Your task to perform on an android device: Do I have any events tomorrow? Image 0: 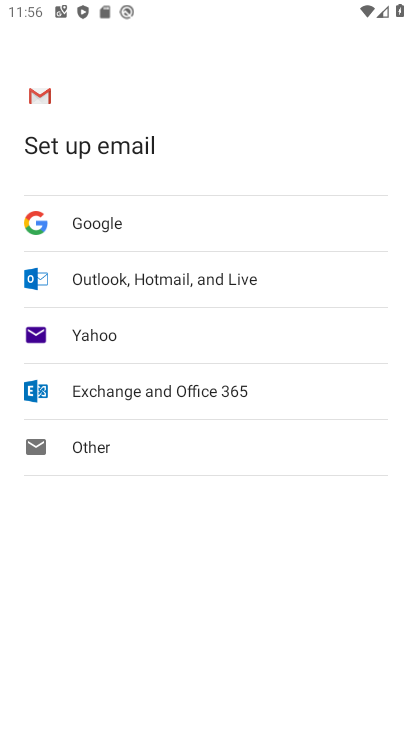
Step 0: press back button
Your task to perform on an android device: Do I have any events tomorrow? Image 1: 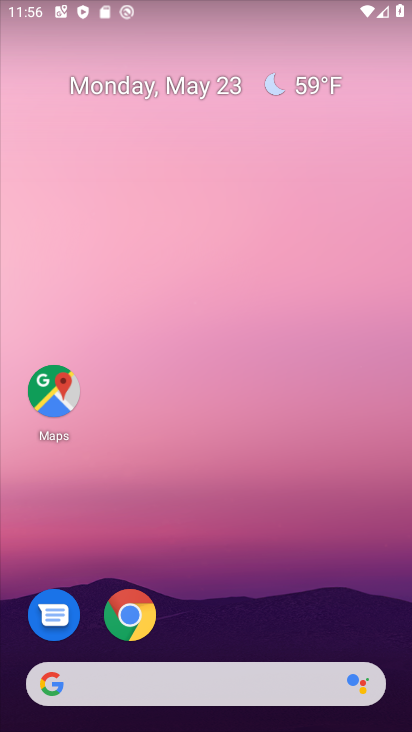
Step 1: drag from (310, 549) to (387, 136)
Your task to perform on an android device: Do I have any events tomorrow? Image 2: 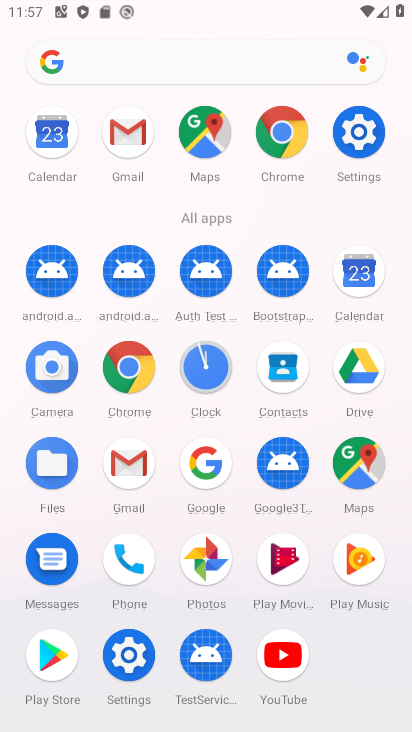
Step 2: drag from (18, 547) to (18, 261)
Your task to perform on an android device: Do I have any events tomorrow? Image 3: 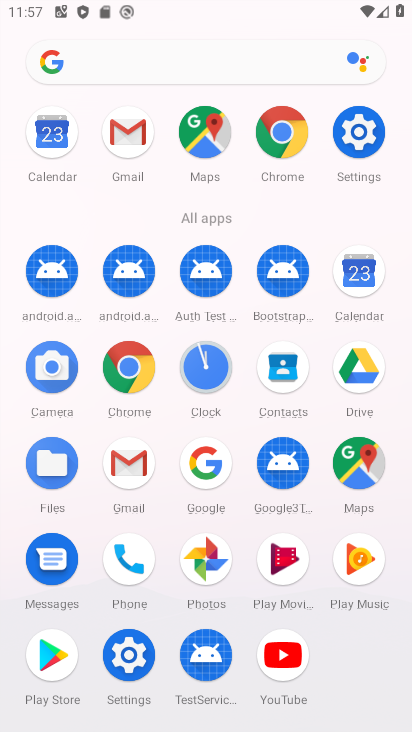
Step 3: drag from (3, 567) to (6, 250)
Your task to perform on an android device: Do I have any events tomorrow? Image 4: 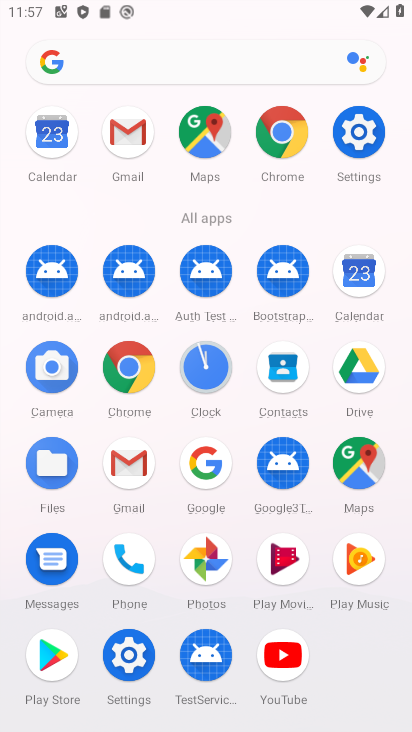
Step 4: click (359, 267)
Your task to perform on an android device: Do I have any events tomorrow? Image 5: 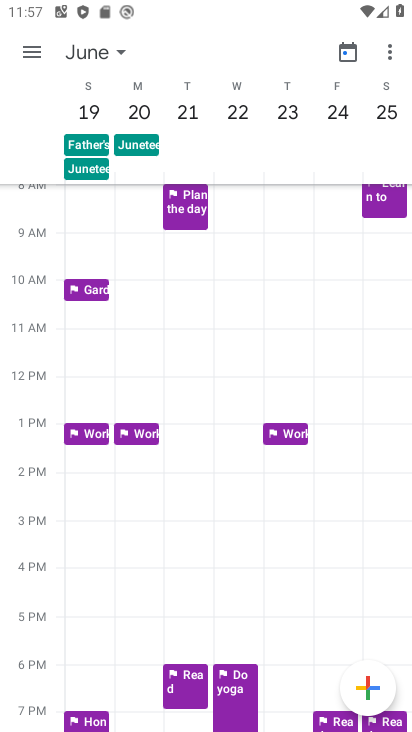
Step 5: click (89, 49)
Your task to perform on an android device: Do I have any events tomorrow? Image 6: 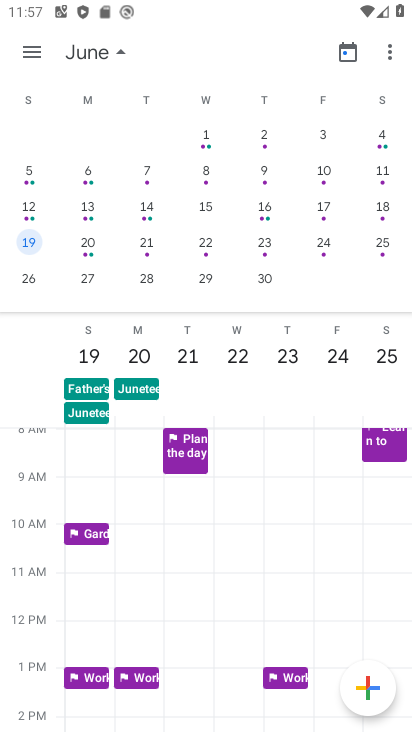
Step 6: click (354, 50)
Your task to perform on an android device: Do I have any events tomorrow? Image 7: 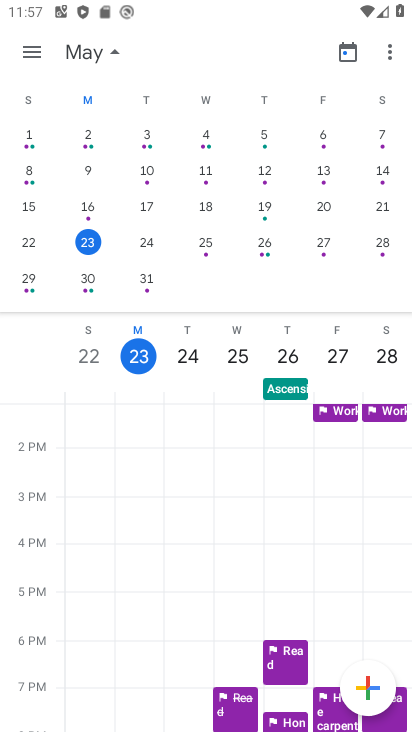
Step 7: click (153, 235)
Your task to perform on an android device: Do I have any events tomorrow? Image 8: 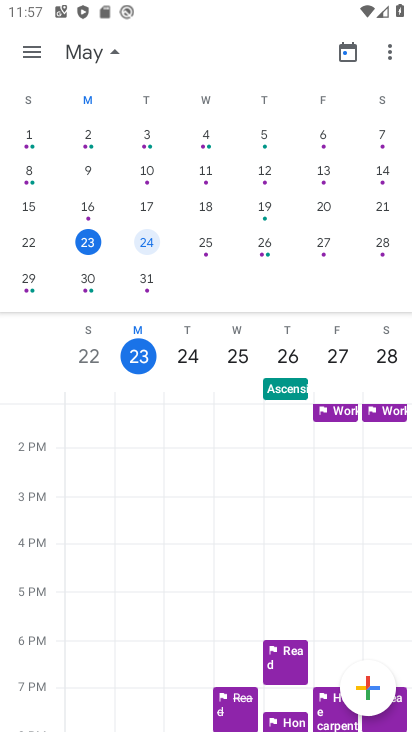
Step 8: click (30, 41)
Your task to perform on an android device: Do I have any events tomorrow? Image 9: 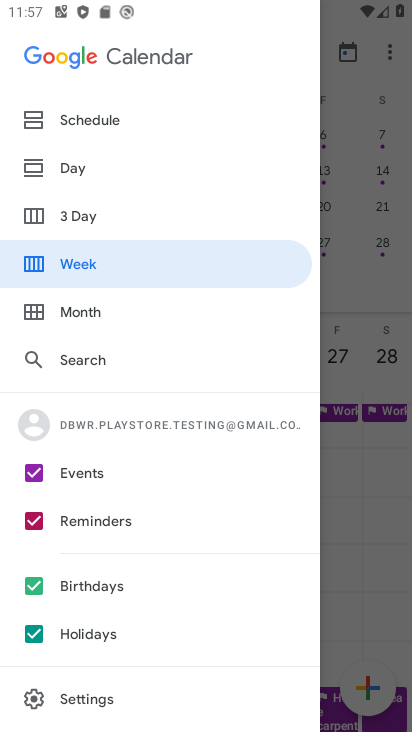
Step 9: click (103, 169)
Your task to perform on an android device: Do I have any events tomorrow? Image 10: 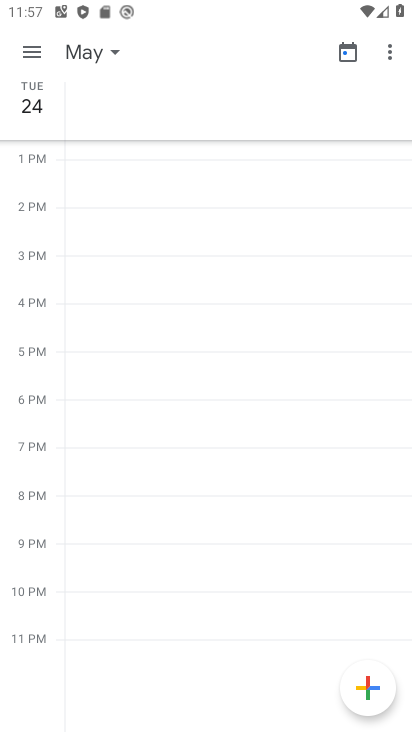
Step 10: task complete